Your task to perform on an android device: see creations saved in the google photos Image 0: 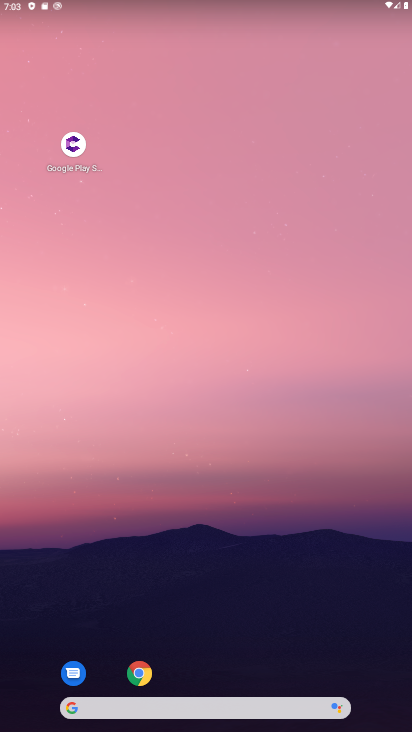
Step 0: drag from (154, 375) to (83, 15)
Your task to perform on an android device: see creations saved in the google photos Image 1: 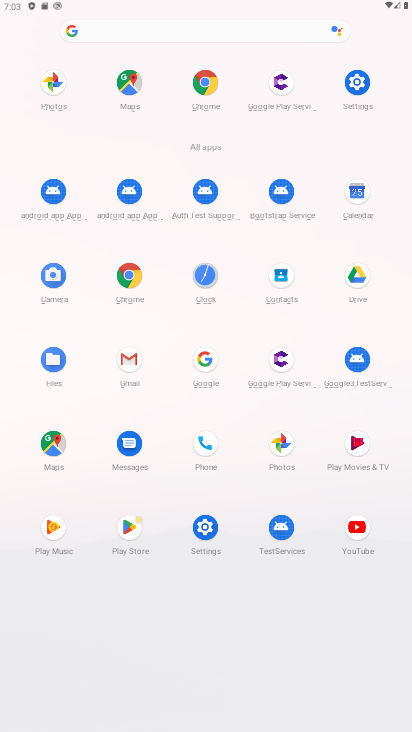
Step 1: click (292, 445)
Your task to perform on an android device: see creations saved in the google photos Image 2: 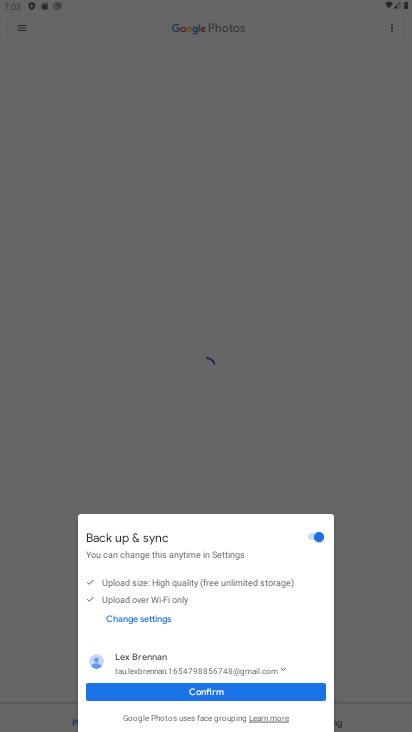
Step 2: click (187, 696)
Your task to perform on an android device: see creations saved in the google photos Image 3: 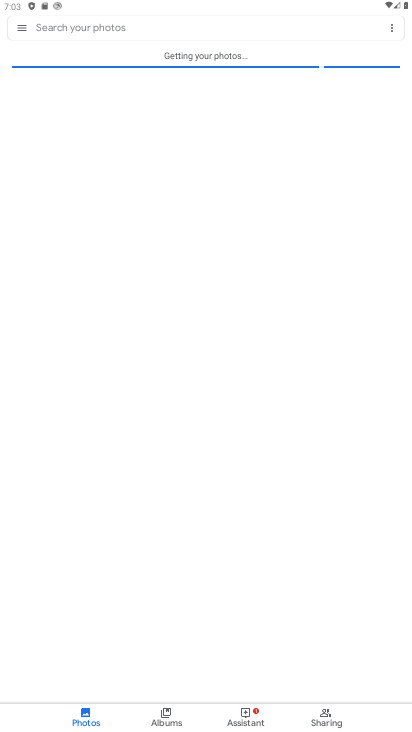
Step 3: click (71, 27)
Your task to perform on an android device: see creations saved in the google photos Image 4: 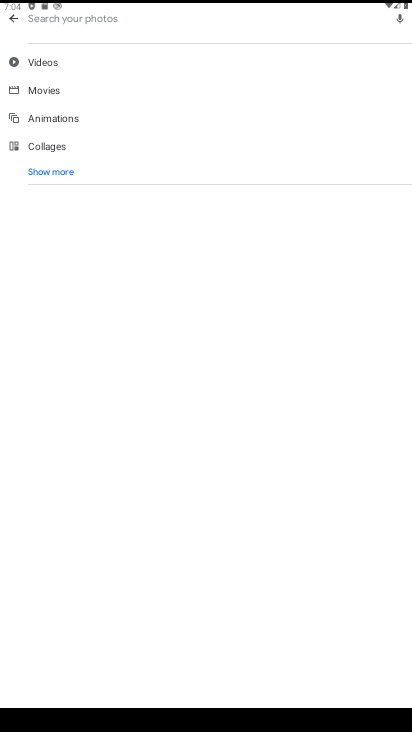
Step 4: click (35, 173)
Your task to perform on an android device: see creations saved in the google photos Image 5: 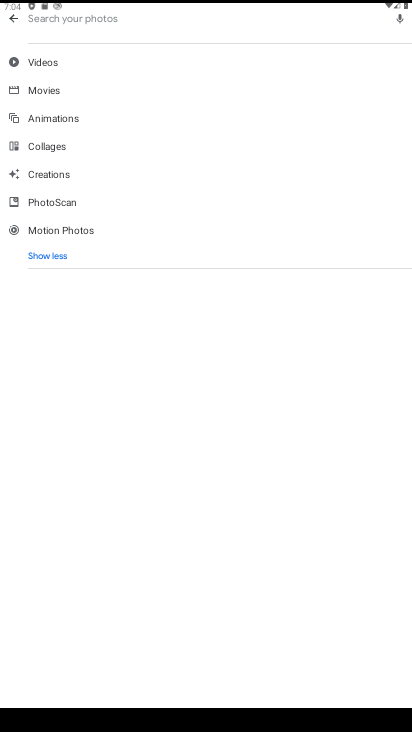
Step 5: click (35, 173)
Your task to perform on an android device: see creations saved in the google photos Image 6: 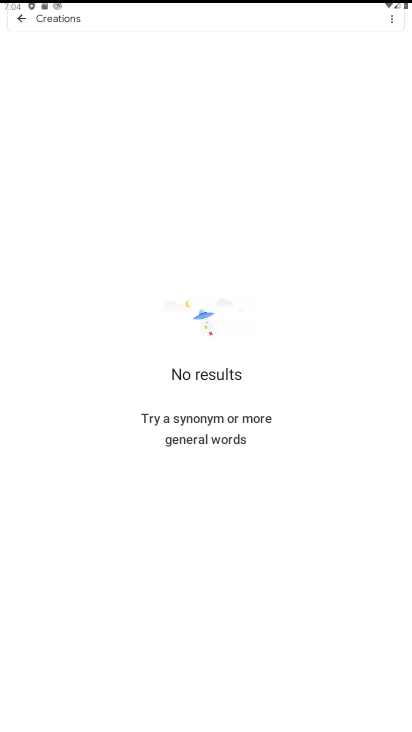
Step 6: task complete